Your task to perform on an android device: Go to eBay Image 0: 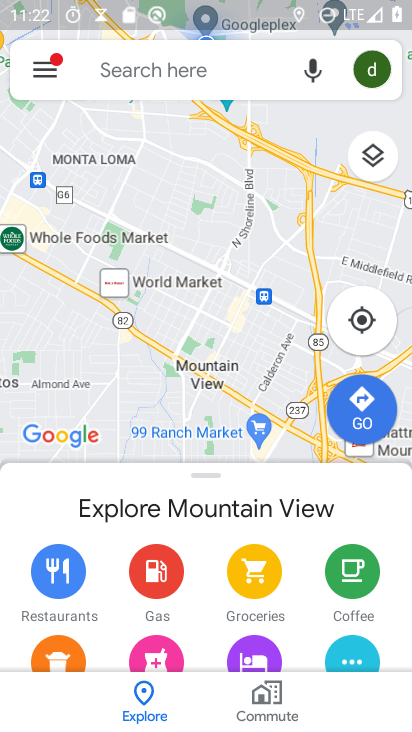
Step 0: press home button
Your task to perform on an android device: Go to eBay Image 1: 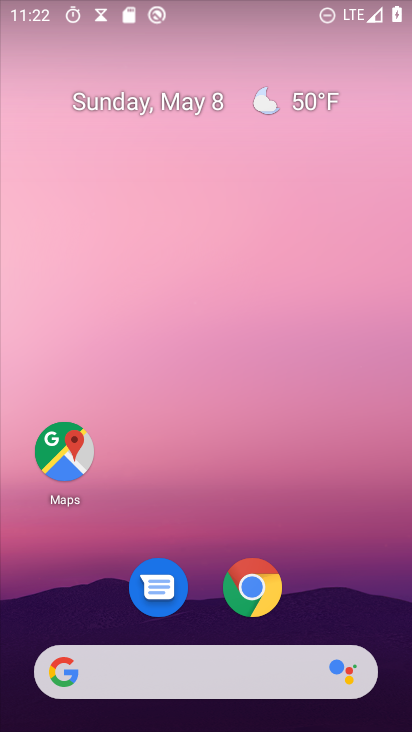
Step 1: click (261, 585)
Your task to perform on an android device: Go to eBay Image 2: 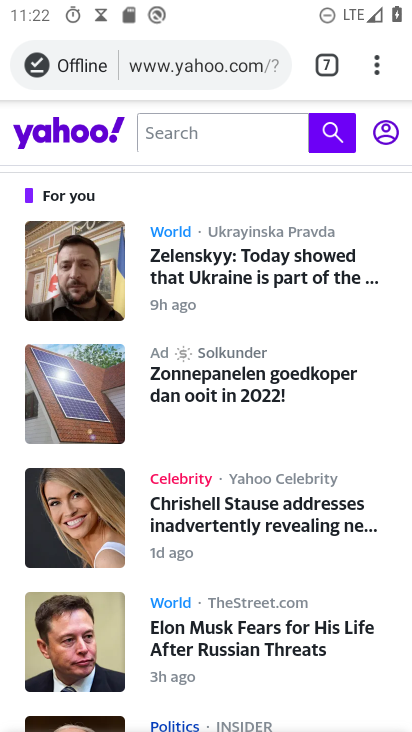
Step 2: click (333, 66)
Your task to perform on an android device: Go to eBay Image 3: 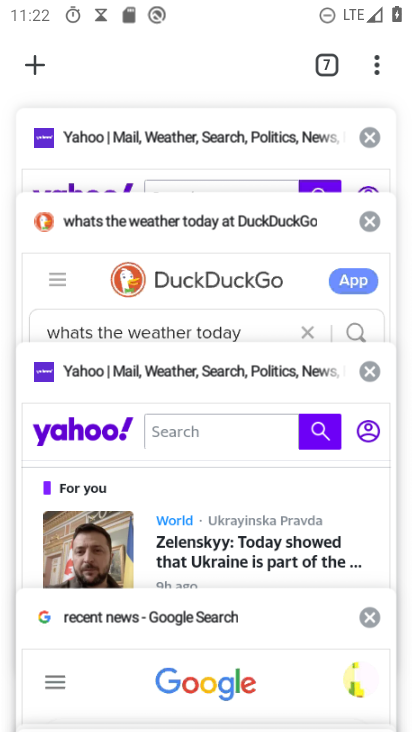
Step 3: click (40, 58)
Your task to perform on an android device: Go to eBay Image 4: 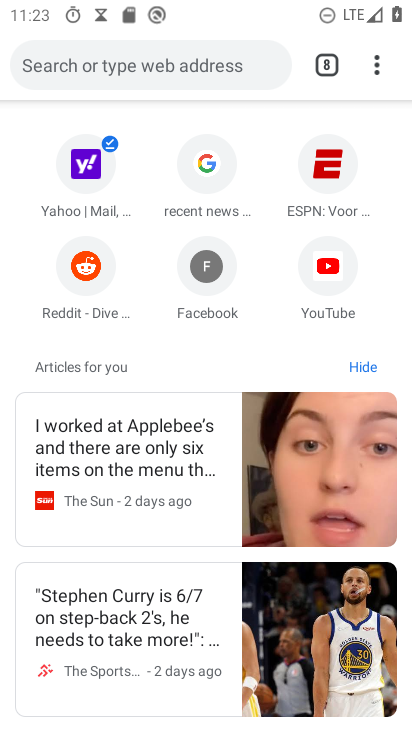
Step 4: click (236, 75)
Your task to perform on an android device: Go to eBay Image 5: 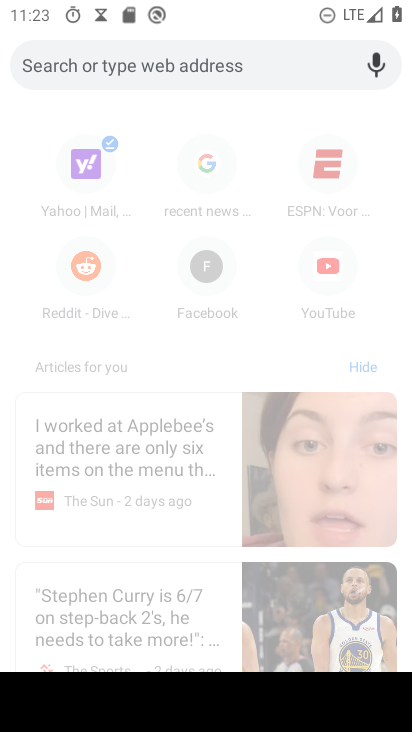
Step 5: type "ebay"
Your task to perform on an android device: Go to eBay Image 6: 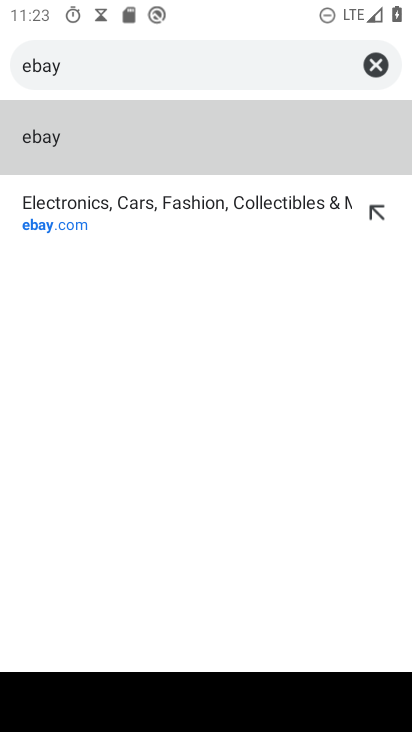
Step 6: click (64, 207)
Your task to perform on an android device: Go to eBay Image 7: 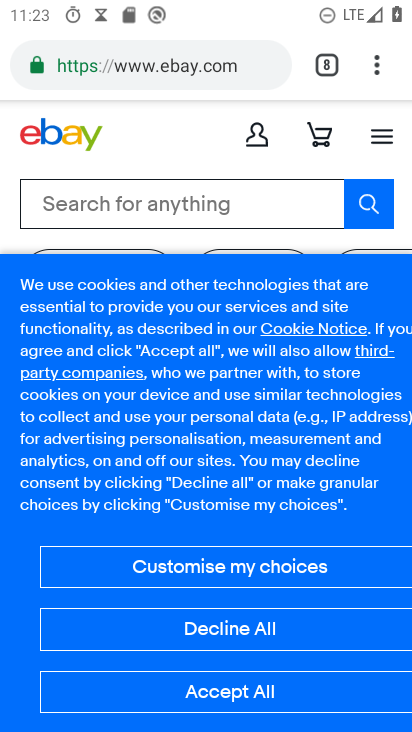
Step 7: task complete